Your task to perform on an android device: Open calendar and show me the second week of next month Image 0: 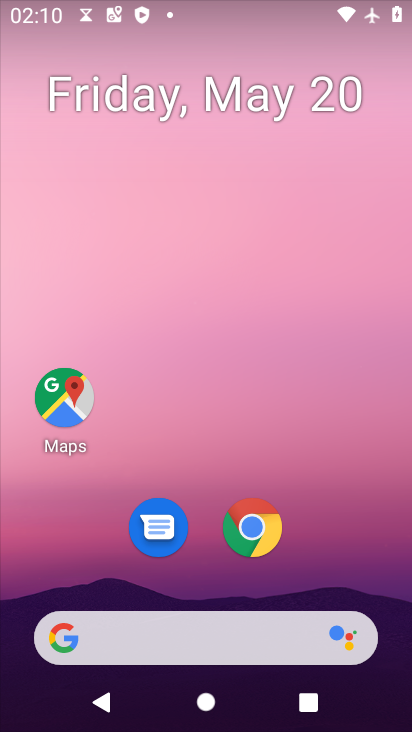
Step 0: press home button
Your task to perform on an android device: Open calendar and show me the second week of next month Image 1: 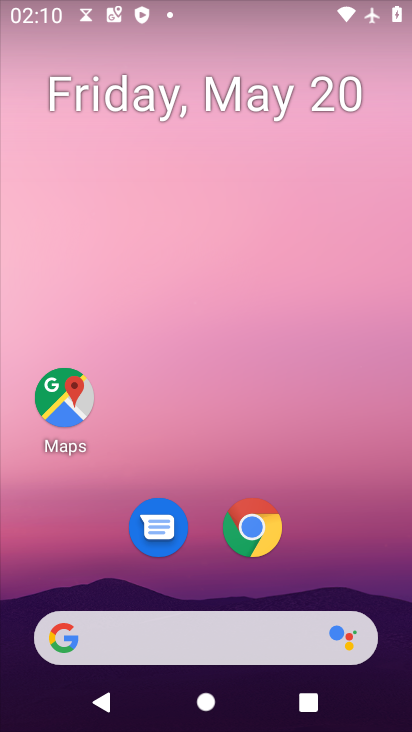
Step 1: drag from (132, 638) to (220, 195)
Your task to perform on an android device: Open calendar and show me the second week of next month Image 2: 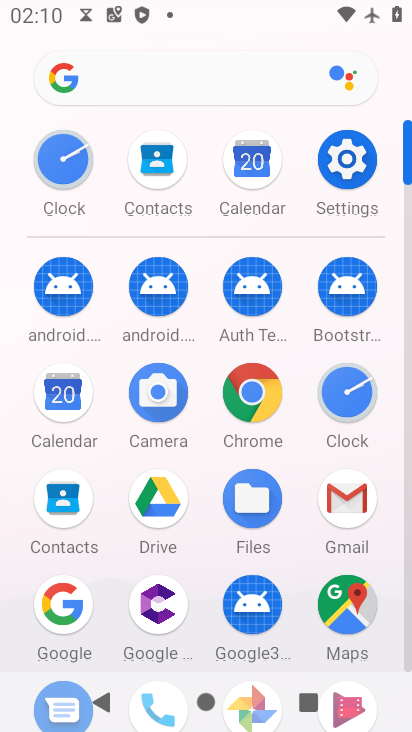
Step 2: click (65, 406)
Your task to perform on an android device: Open calendar and show me the second week of next month Image 3: 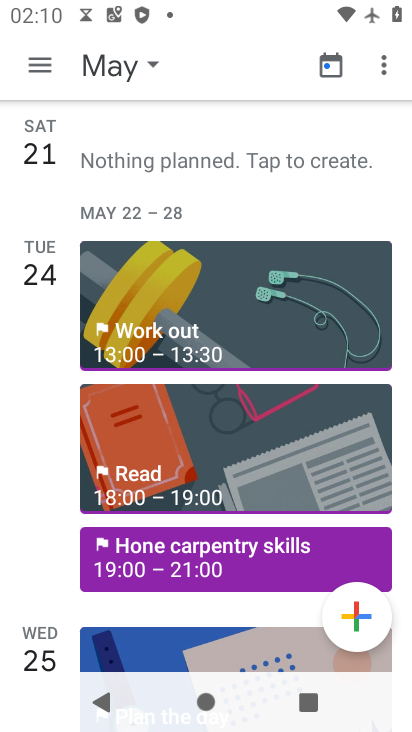
Step 3: click (118, 55)
Your task to perform on an android device: Open calendar and show me the second week of next month Image 4: 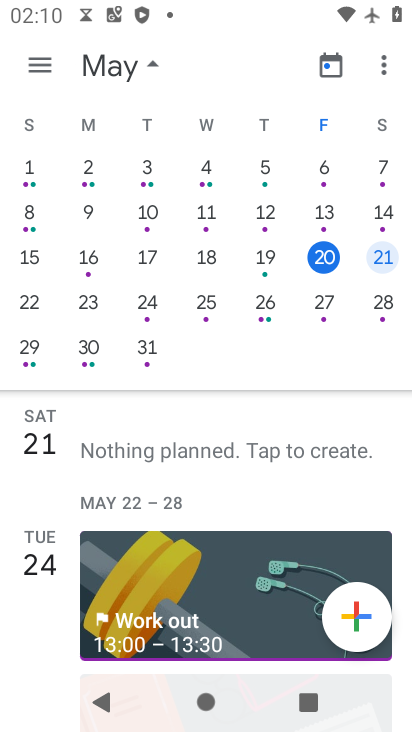
Step 4: drag from (375, 214) to (91, 225)
Your task to perform on an android device: Open calendar and show me the second week of next month Image 5: 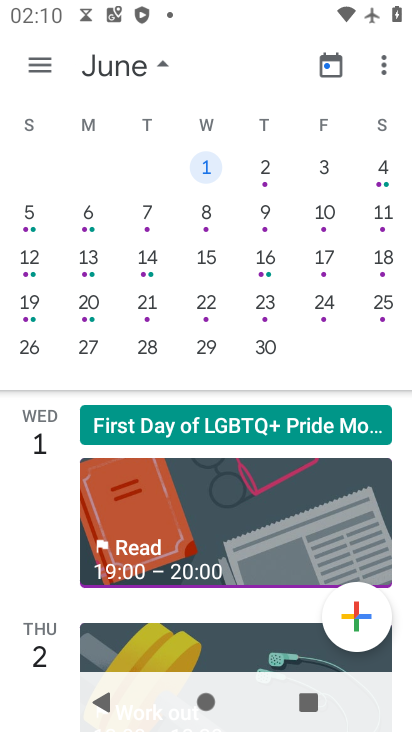
Step 5: click (36, 216)
Your task to perform on an android device: Open calendar and show me the second week of next month Image 6: 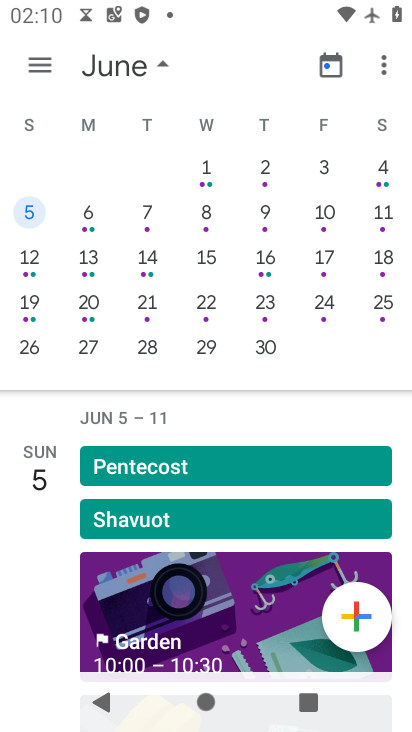
Step 6: click (39, 61)
Your task to perform on an android device: Open calendar and show me the second week of next month Image 7: 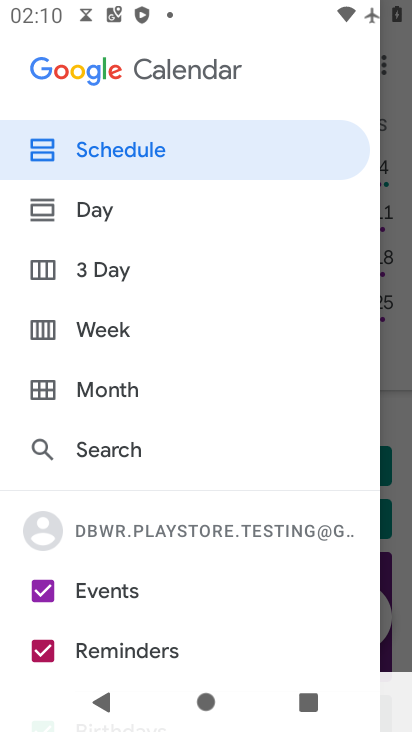
Step 7: click (97, 334)
Your task to perform on an android device: Open calendar and show me the second week of next month Image 8: 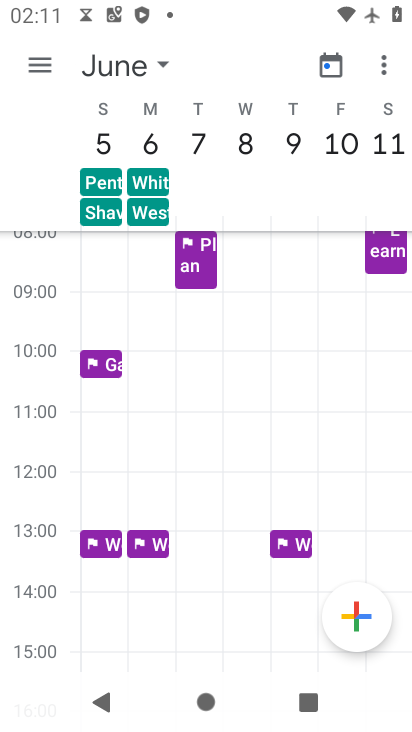
Step 8: task complete